Your task to perform on an android device: turn on airplane mode Image 0: 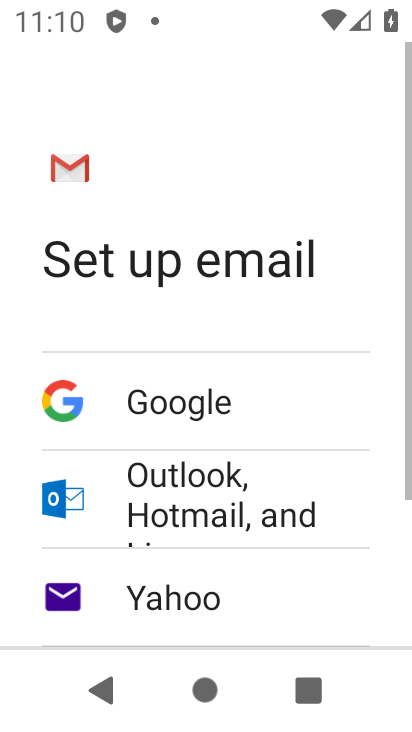
Step 0: press home button
Your task to perform on an android device: turn on airplane mode Image 1: 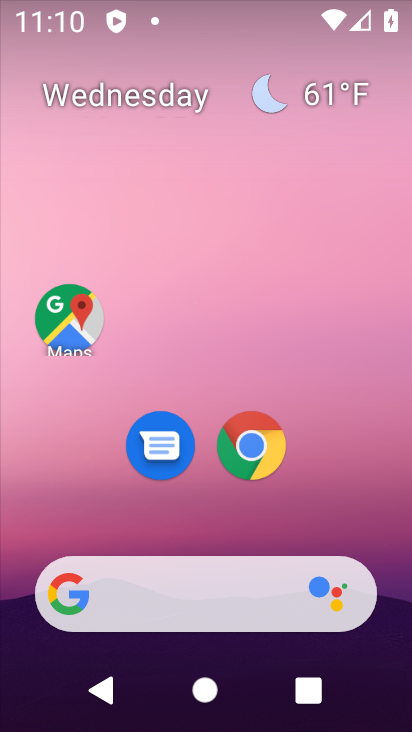
Step 1: drag from (336, 498) to (337, 181)
Your task to perform on an android device: turn on airplane mode Image 2: 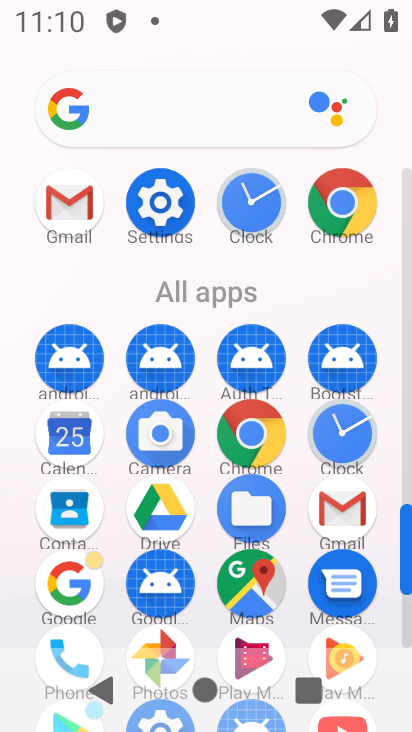
Step 2: click (148, 205)
Your task to perform on an android device: turn on airplane mode Image 3: 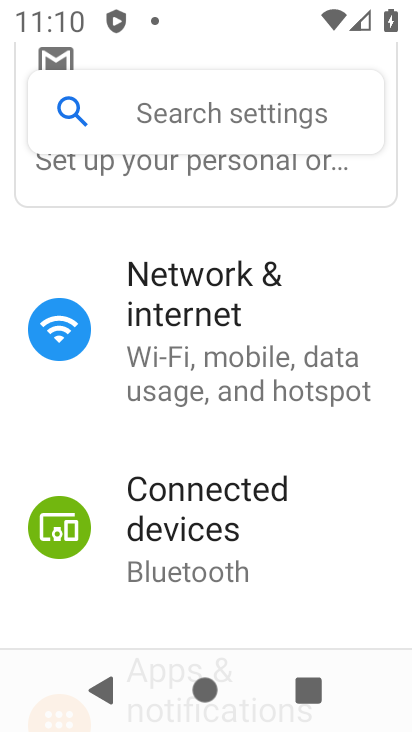
Step 3: drag from (220, 308) to (258, 504)
Your task to perform on an android device: turn on airplane mode Image 4: 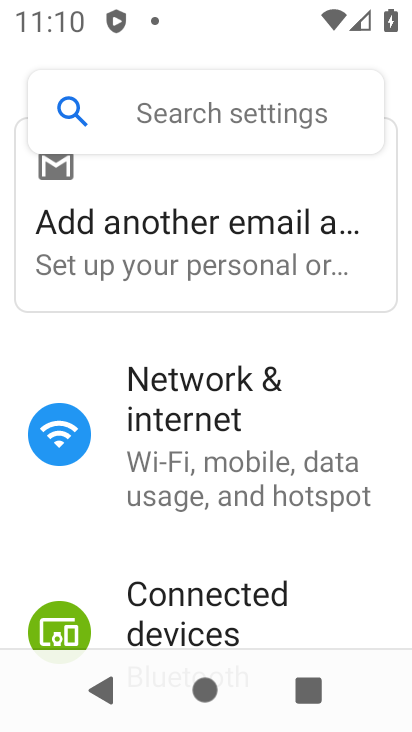
Step 4: click (264, 484)
Your task to perform on an android device: turn on airplane mode Image 5: 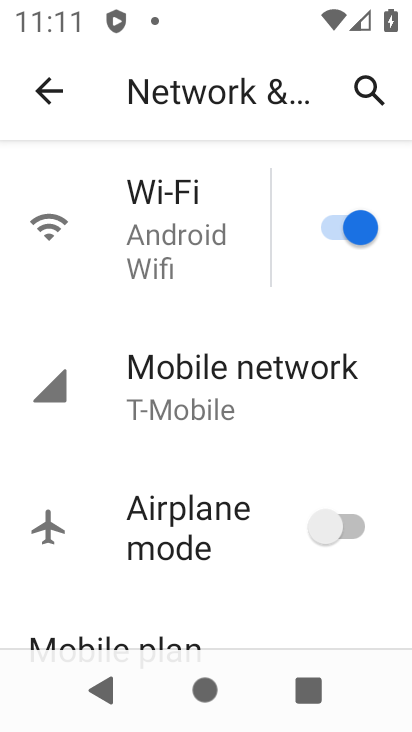
Step 5: click (355, 529)
Your task to perform on an android device: turn on airplane mode Image 6: 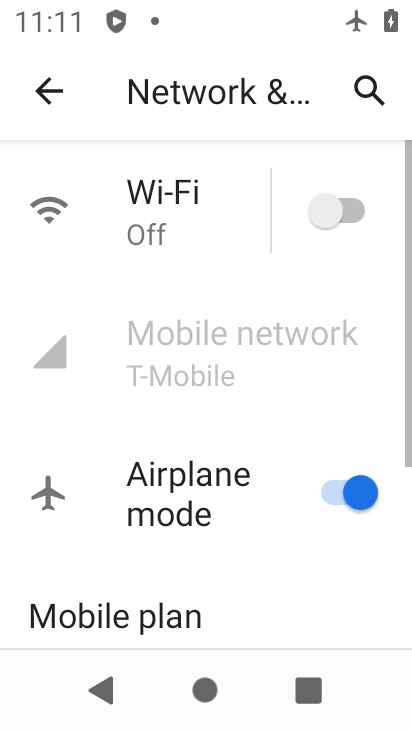
Step 6: task complete